Your task to perform on an android device: turn notification dots off Image 0: 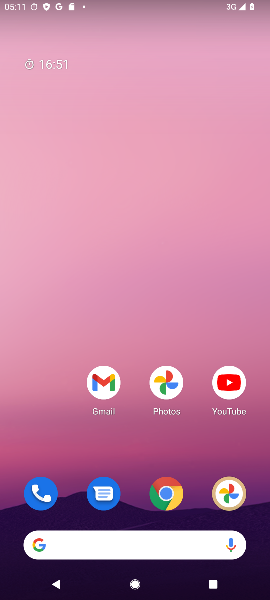
Step 0: press home button
Your task to perform on an android device: turn notification dots off Image 1: 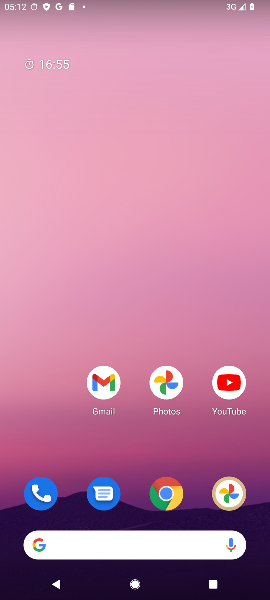
Step 1: drag from (11, 420) to (31, 189)
Your task to perform on an android device: turn notification dots off Image 2: 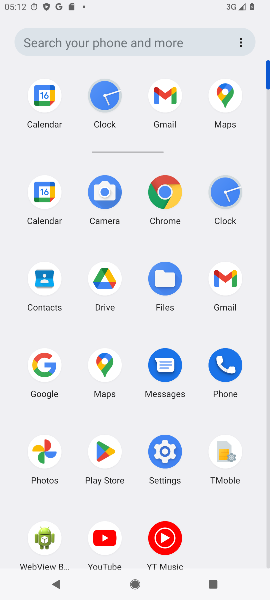
Step 2: click (163, 455)
Your task to perform on an android device: turn notification dots off Image 3: 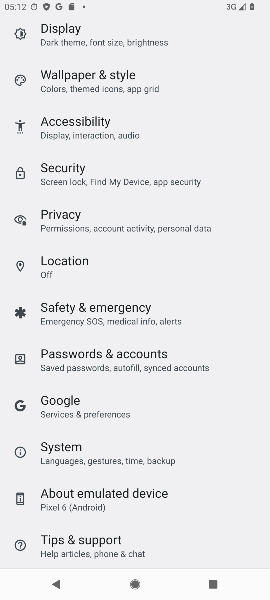
Step 3: drag from (231, 489) to (242, 374)
Your task to perform on an android device: turn notification dots off Image 4: 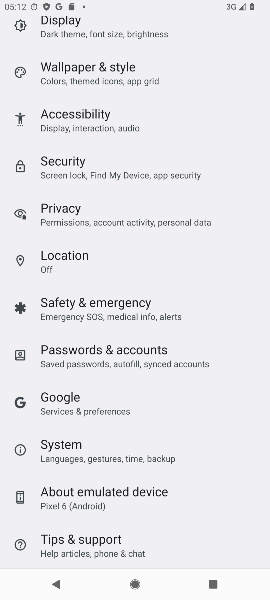
Step 4: drag from (234, 245) to (237, 329)
Your task to perform on an android device: turn notification dots off Image 5: 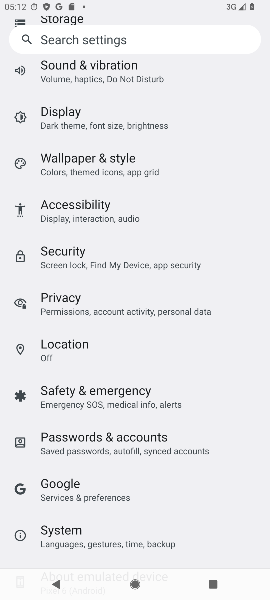
Step 5: drag from (242, 183) to (240, 293)
Your task to perform on an android device: turn notification dots off Image 6: 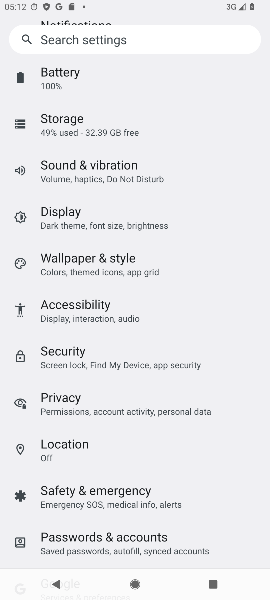
Step 6: drag from (240, 159) to (240, 275)
Your task to perform on an android device: turn notification dots off Image 7: 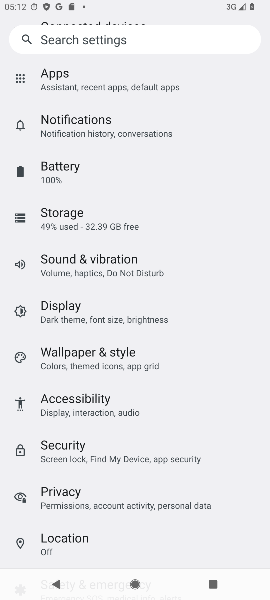
Step 7: drag from (241, 131) to (241, 259)
Your task to perform on an android device: turn notification dots off Image 8: 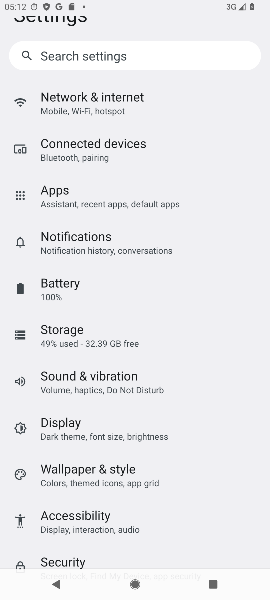
Step 8: drag from (239, 127) to (239, 248)
Your task to perform on an android device: turn notification dots off Image 9: 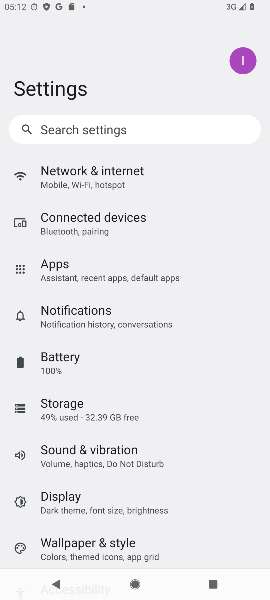
Step 9: drag from (231, 359) to (240, 290)
Your task to perform on an android device: turn notification dots off Image 10: 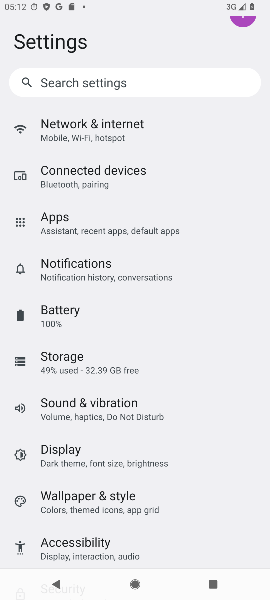
Step 10: click (190, 277)
Your task to perform on an android device: turn notification dots off Image 11: 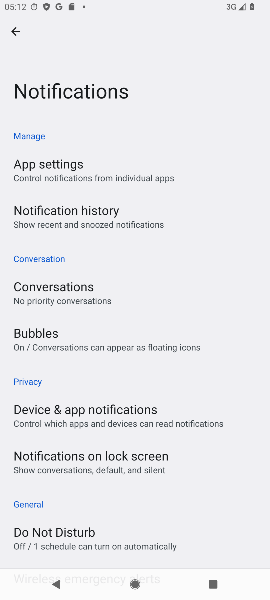
Step 11: task complete